Your task to perform on an android device: turn vacation reply on in the gmail app Image 0: 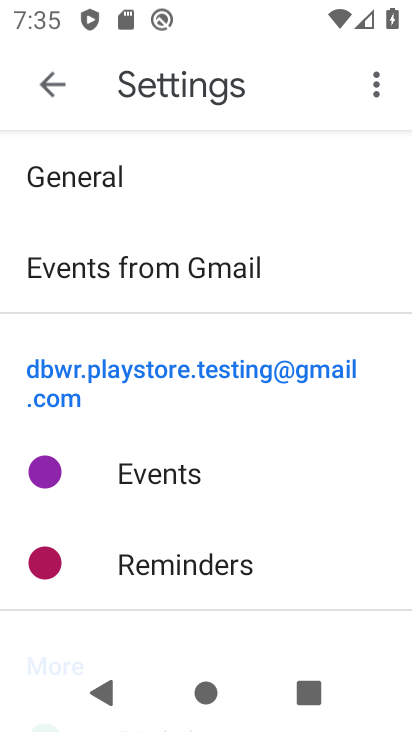
Step 0: press home button
Your task to perform on an android device: turn vacation reply on in the gmail app Image 1: 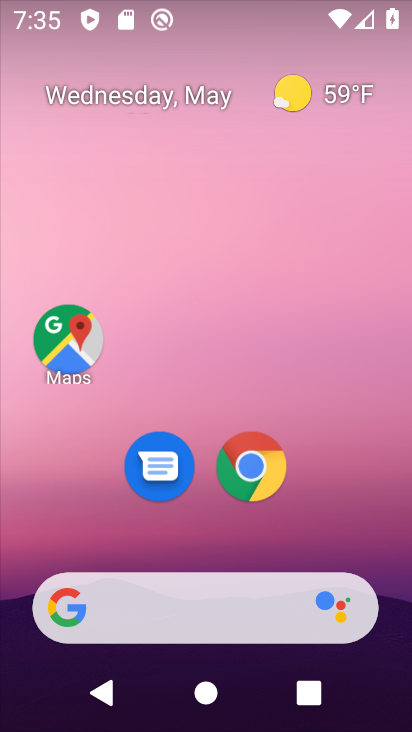
Step 1: drag from (353, 379) to (313, 161)
Your task to perform on an android device: turn vacation reply on in the gmail app Image 2: 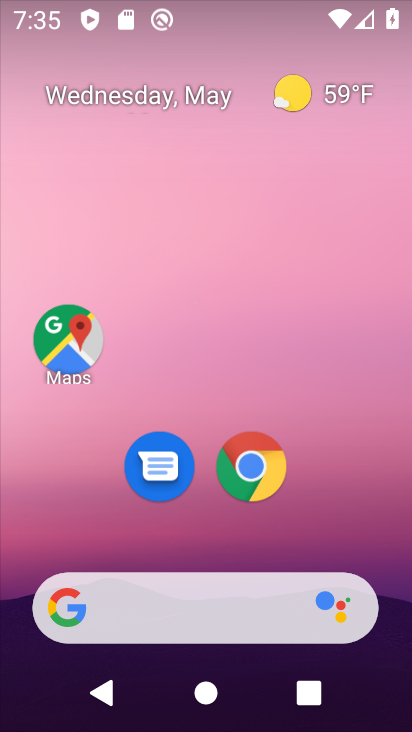
Step 2: drag from (333, 521) to (339, 168)
Your task to perform on an android device: turn vacation reply on in the gmail app Image 3: 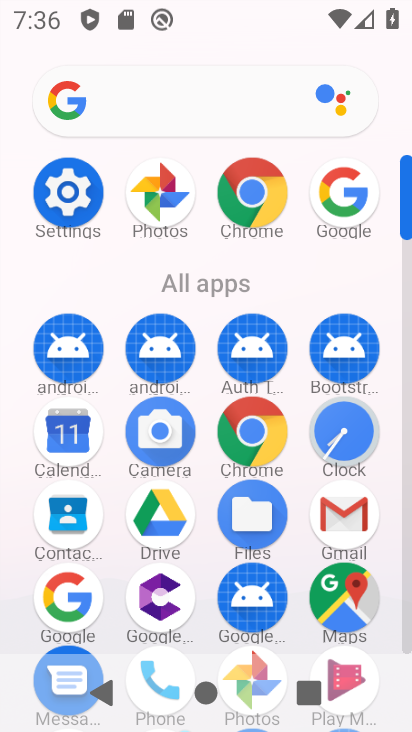
Step 3: click (334, 510)
Your task to perform on an android device: turn vacation reply on in the gmail app Image 4: 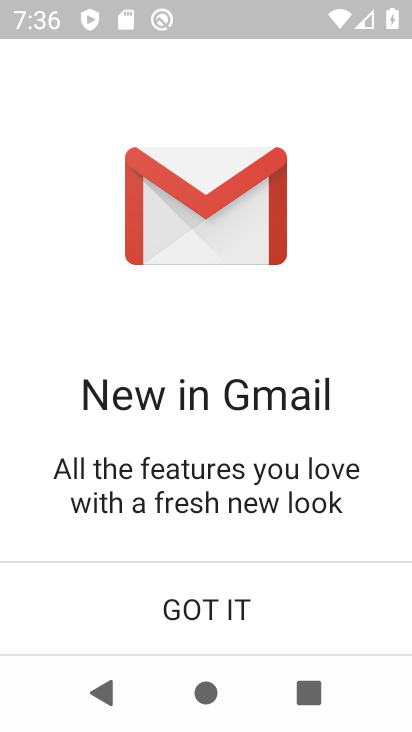
Step 4: click (216, 606)
Your task to perform on an android device: turn vacation reply on in the gmail app Image 5: 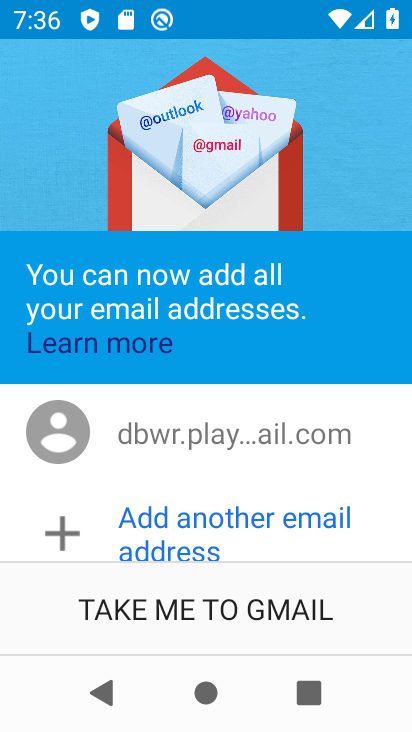
Step 5: click (214, 605)
Your task to perform on an android device: turn vacation reply on in the gmail app Image 6: 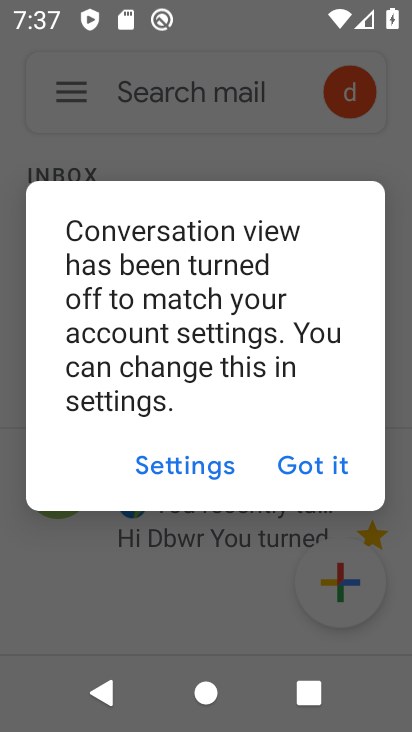
Step 6: click (287, 465)
Your task to perform on an android device: turn vacation reply on in the gmail app Image 7: 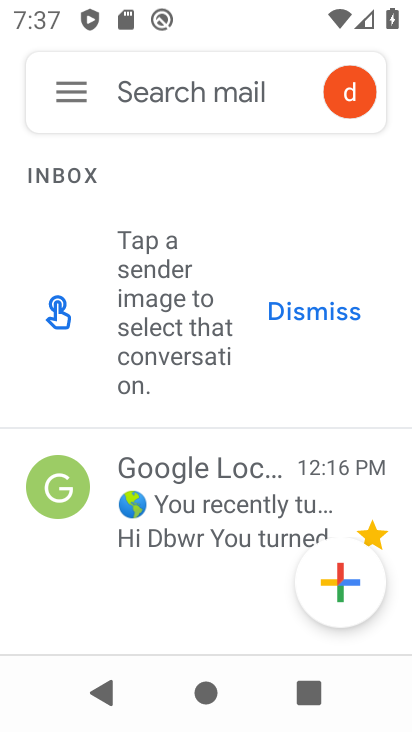
Step 7: click (67, 78)
Your task to perform on an android device: turn vacation reply on in the gmail app Image 8: 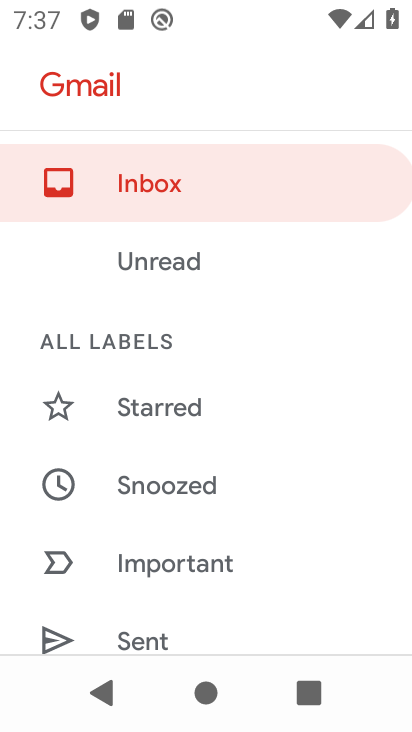
Step 8: drag from (207, 586) to (234, 367)
Your task to perform on an android device: turn vacation reply on in the gmail app Image 9: 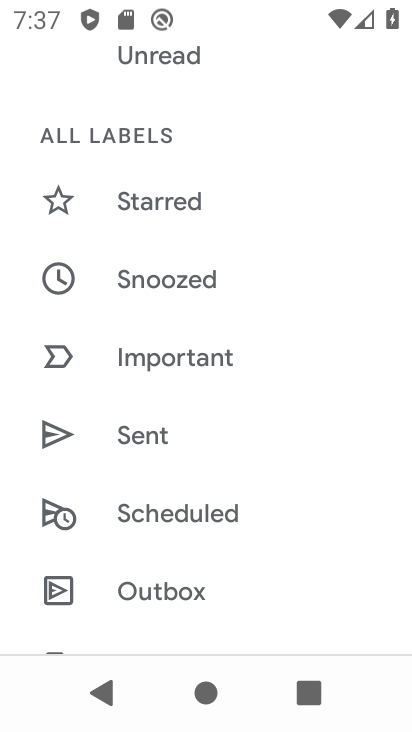
Step 9: drag from (186, 607) to (223, 378)
Your task to perform on an android device: turn vacation reply on in the gmail app Image 10: 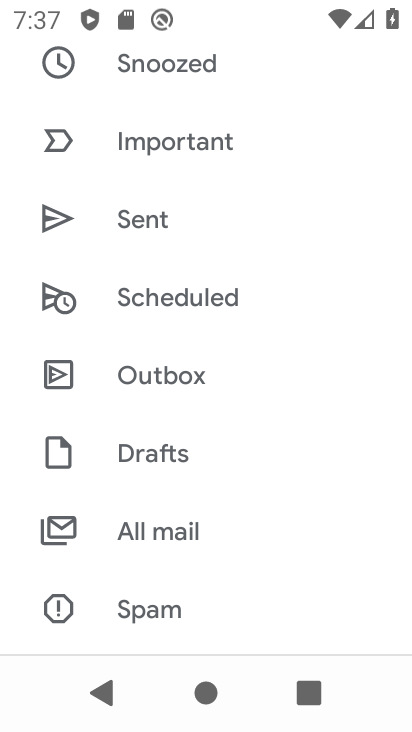
Step 10: drag from (186, 601) to (252, 210)
Your task to perform on an android device: turn vacation reply on in the gmail app Image 11: 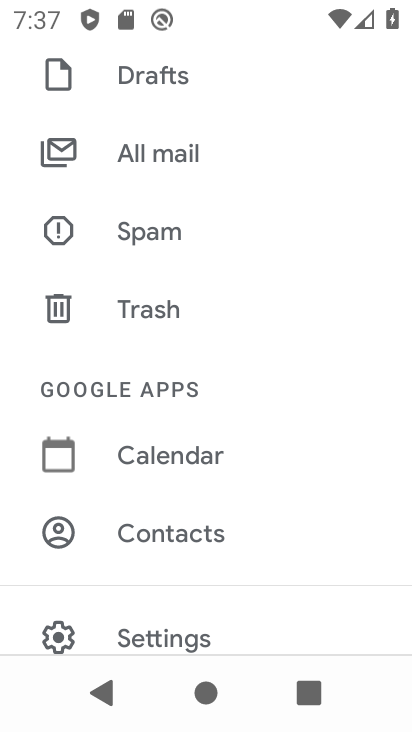
Step 11: drag from (198, 599) to (230, 376)
Your task to perform on an android device: turn vacation reply on in the gmail app Image 12: 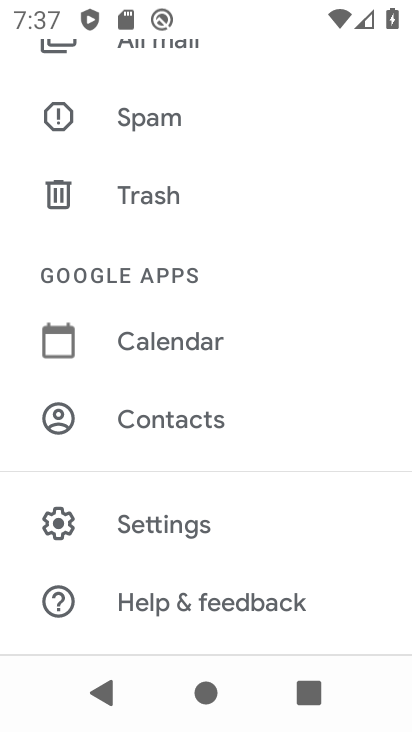
Step 12: click (177, 516)
Your task to perform on an android device: turn vacation reply on in the gmail app Image 13: 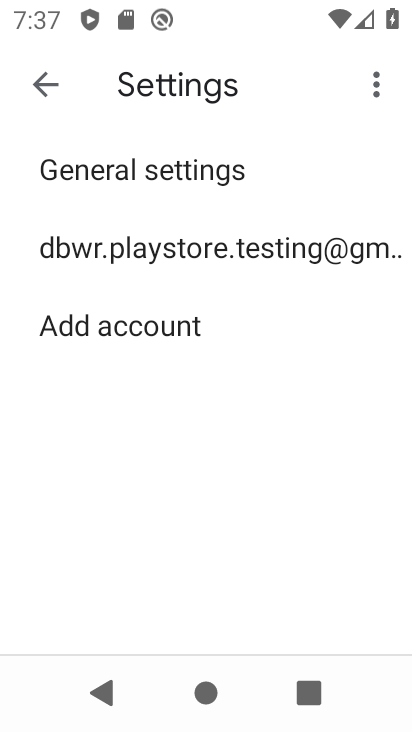
Step 13: click (199, 252)
Your task to perform on an android device: turn vacation reply on in the gmail app Image 14: 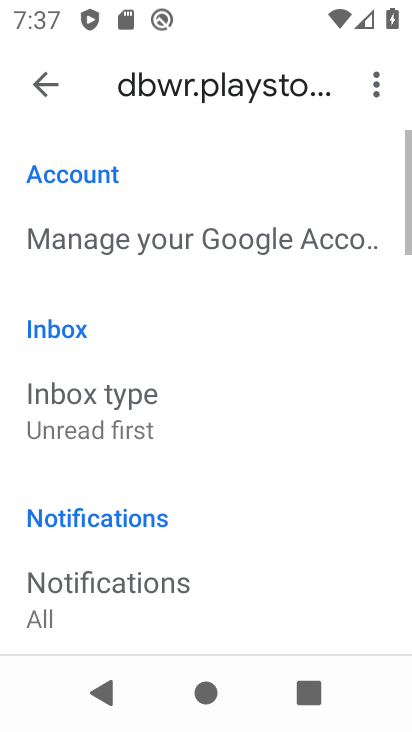
Step 14: drag from (236, 588) to (247, 210)
Your task to perform on an android device: turn vacation reply on in the gmail app Image 15: 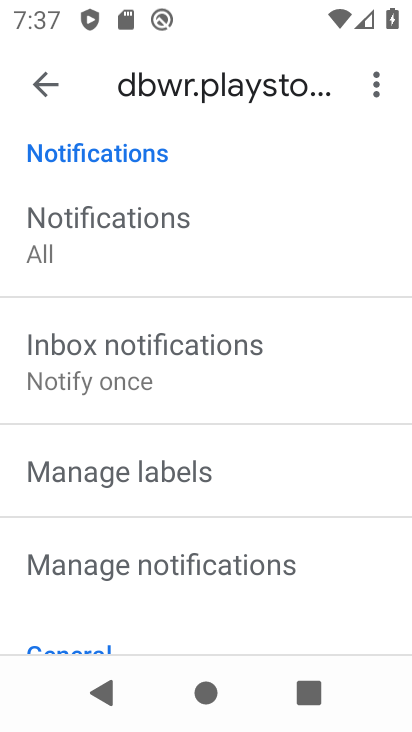
Step 15: drag from (177, 534) to (177, 205)
Your task to perform on an android device: turn vacation reply on in the gmail app Image 16: 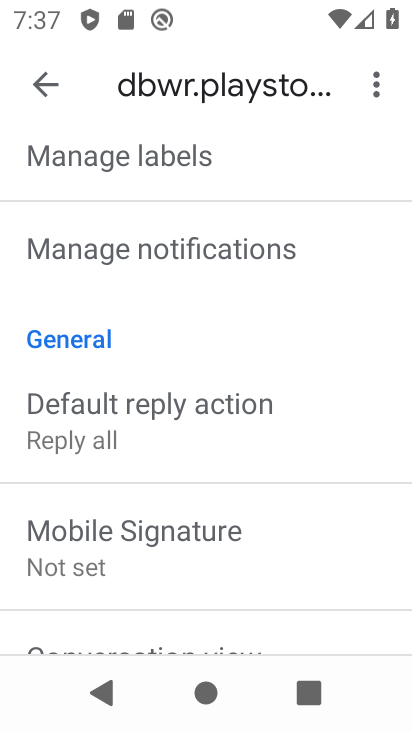
Step 16: drag from (188, 563) to (218, 242)
Your task to perform on an android device: turn vacation reply on in the gmail app Image 17: 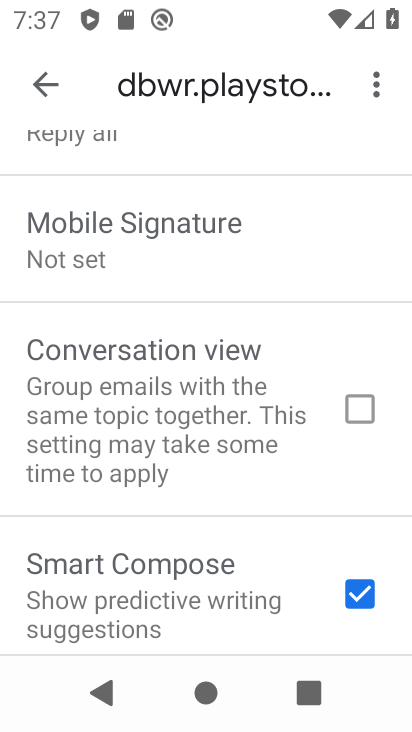
Step 17: drag from (204, 504) to (244, 184)
Your task to perform on an android device: turn vacation reply on in the gmail app Image 18: 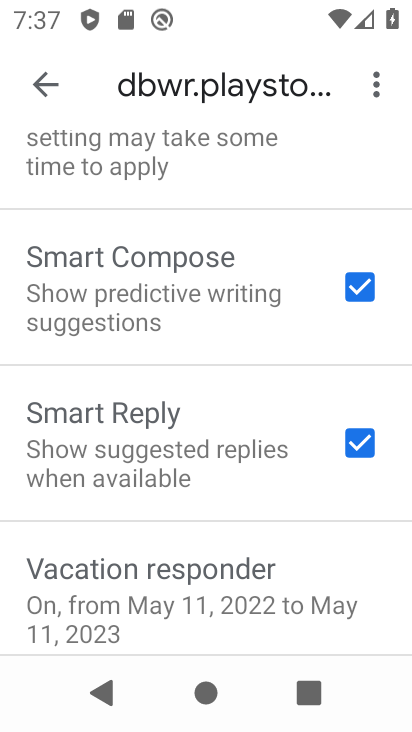
Step 18: click (181, 595)
Your task to perform on an android device: turn vacation reply on in the gmail app Image 19: 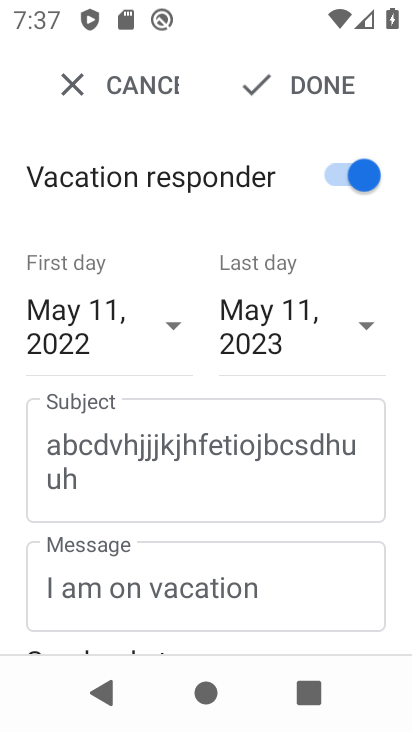
Step 19: drag from (99, 342) to (149, 377)
Your task to perform on an android device: turn vacation reply on in the gmail app Image 20: 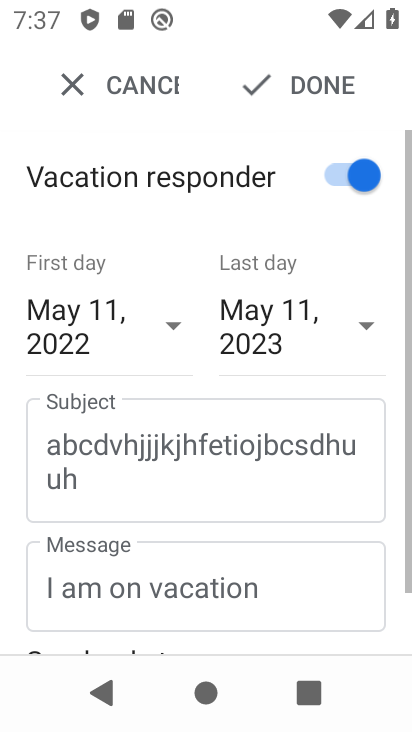
Step 20: click (148, 377)
Your task to perform on an android device: turn vacation reply on in the gmail app Image 21: 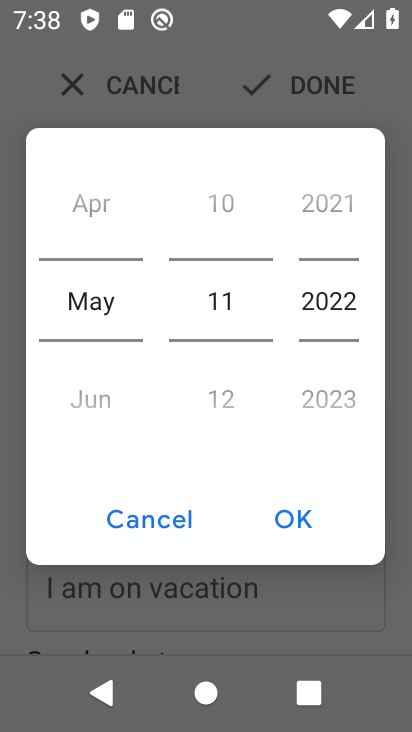
Step 21: click (134, 510)
Your task to perform on an android device: turn vacation reply on in the gmail app Image 22: 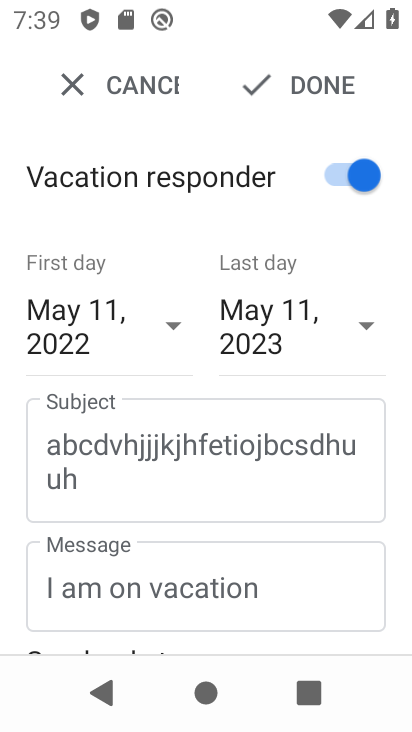
Step 22: task complete